Your task to perform on an android device: delete the emails in spam in the gmail app Image 0: 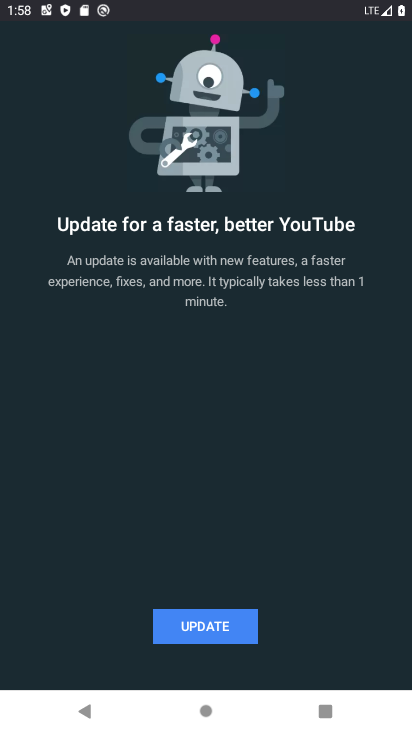
Step 0: press home button
Your task to perform on an android device: delete the emails in spam in the gmail app Image 1: 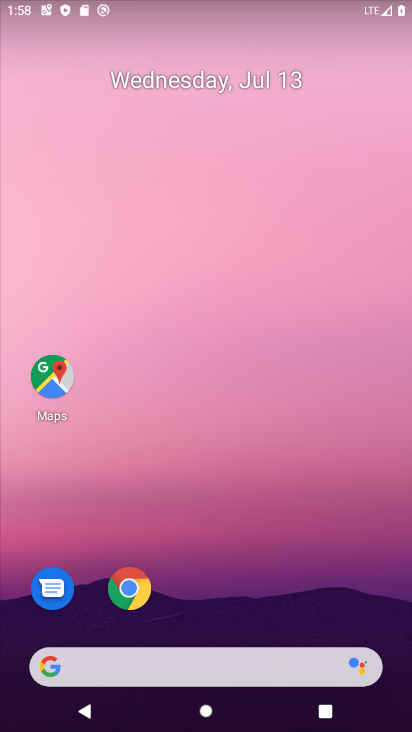
Step 1: drag from (394, 680) to (334, 116)
Your task to perform on an android device: delete the emails in spam in the gmail app Image 2: 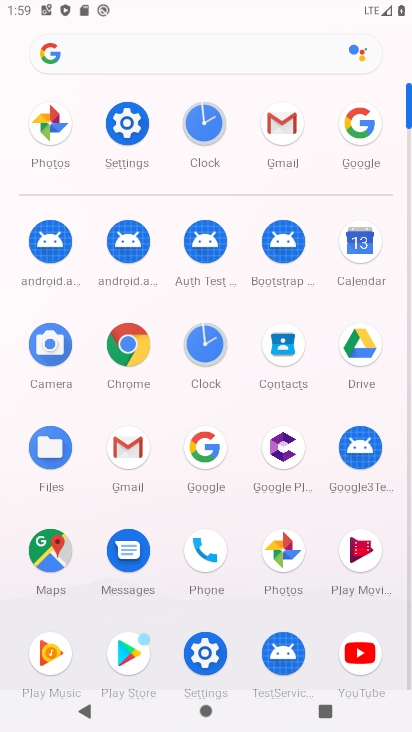
Step 2: click (132, 456)
Your task to perform on an android device: delete the emails in spam in the gmail app Image 3: 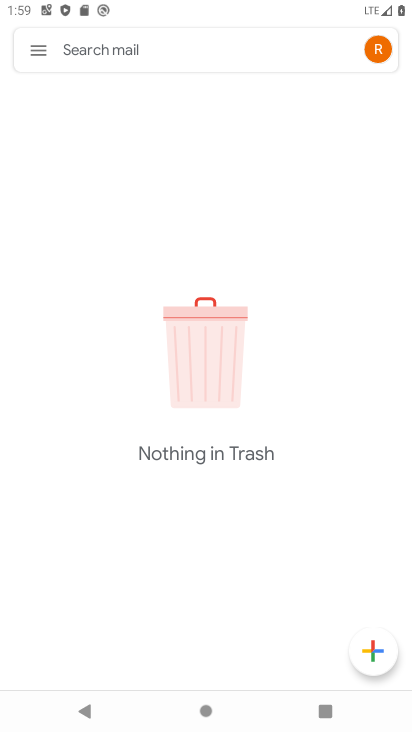
Step 3: task complete